Your task to perform on an android device: Go to CNN.com Image 0: 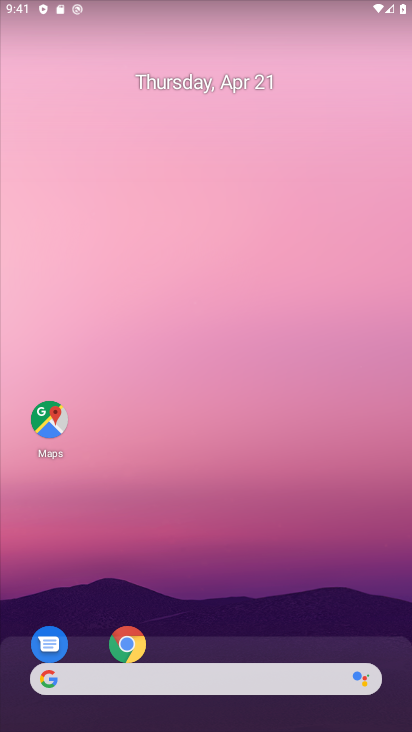
Step 0: click (125, 651)
Your task to perform on an android device: Go to CNN.com Image 1: 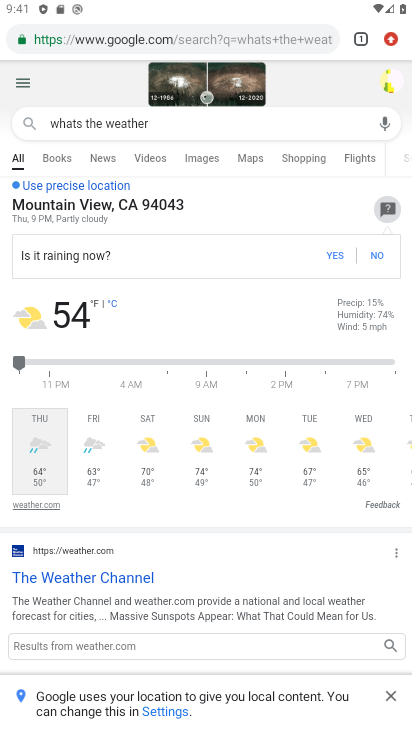
Step 1: click (363, 36)
Your task to perform on an android device: Go to CNN.com Image 2: 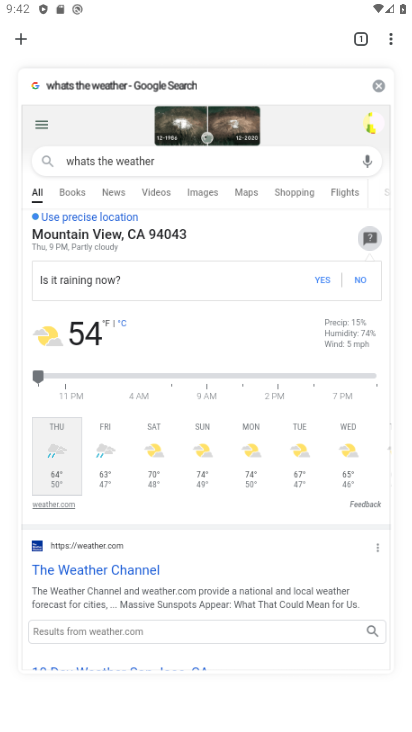
Step 2: click (175, 164)
Your task to perform on an android device: Go to CNN.com Image 3: 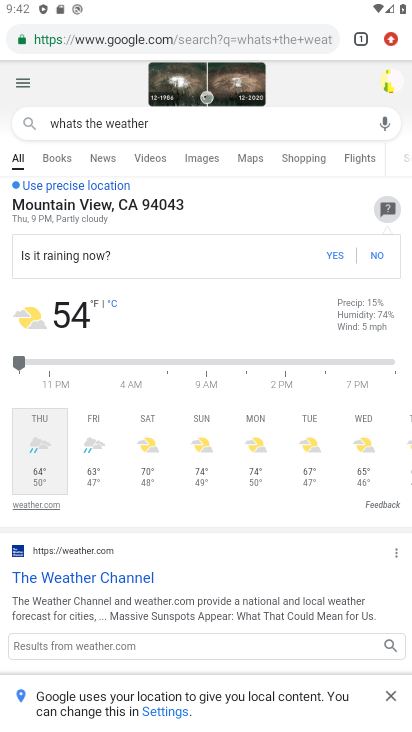
Step 3: click (153, 37)
Your task to perform on an android device: Go to CNN.com Image 4: 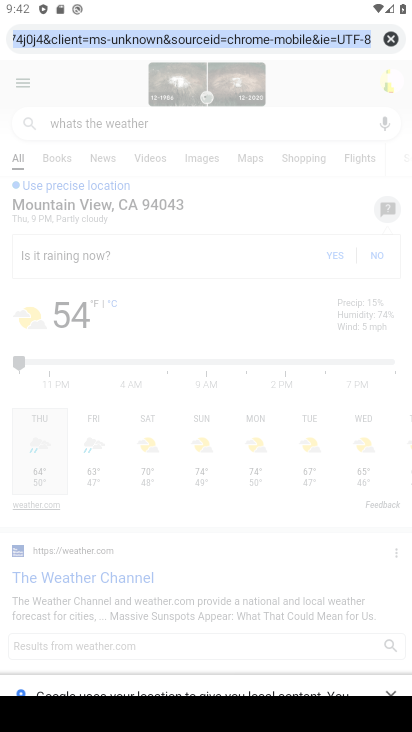
Step 4: click (391, 42)
Your task to perform on an android device: Go to CNN.com Image 5: 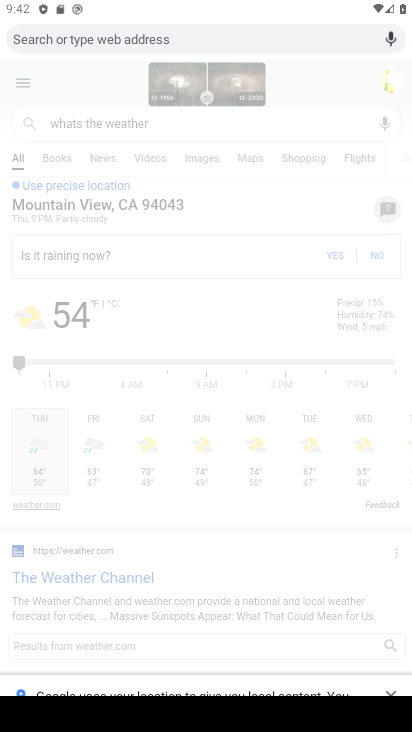
Step 5: click (132, 40)
Your task to perform on an android device: Go to CNN.com Image 6: 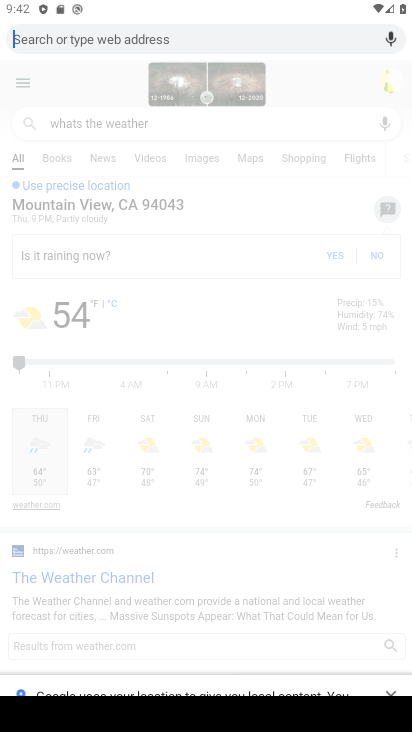
Step 6: type "cnn.com"
Your task to perform on an android device: Go to CNN.com Image 7: 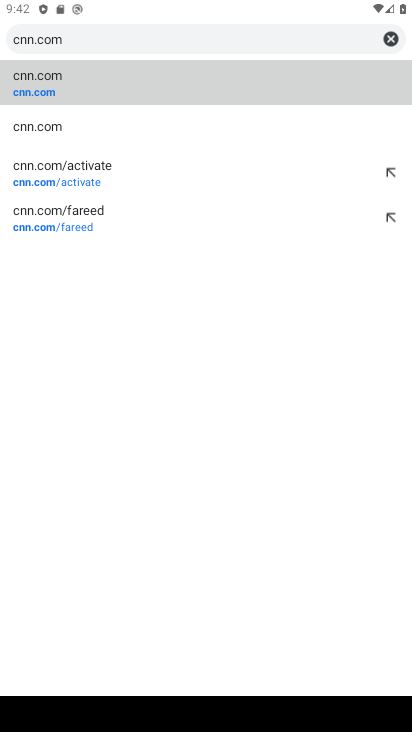
Step 7: click (37, 83)
Your task to perform on an android device: Go to CNN.com Image 8: 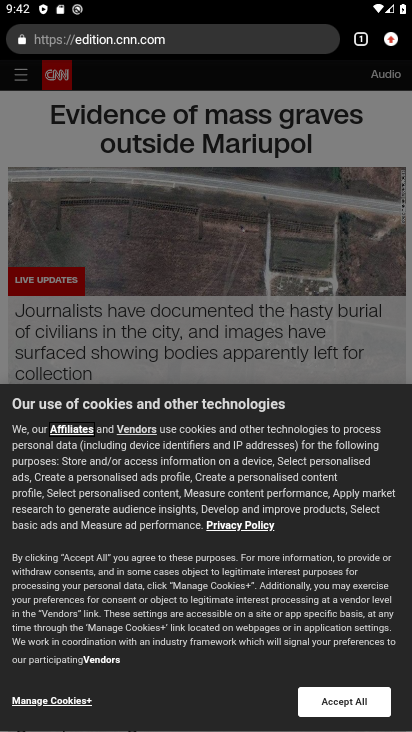
Step 8: task complete